Your task to perform on an android device: remove spam from my inbox in the gmail app Image 0: 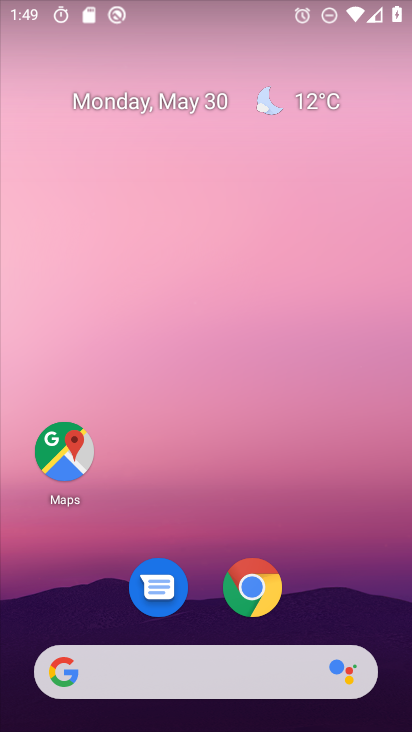
Step 0: drag from (358, 597) to (333, 152)
Your task to perform on an android device: remove spam from my inbox in the gmail app Image 1: 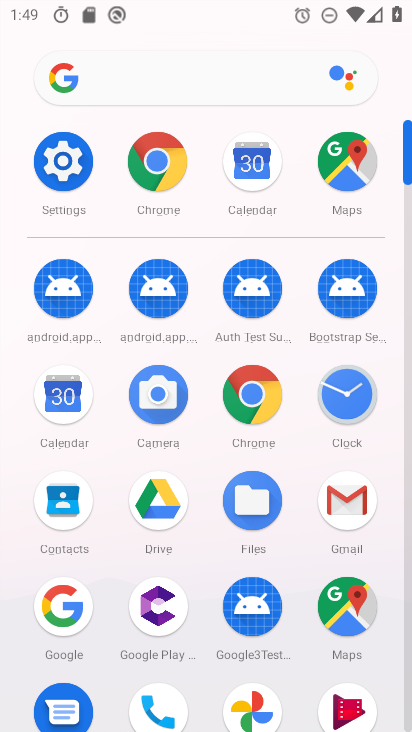
Step 1: click (348, 509)
Your task to perform on an android device: remove spam from my inbox in the gmail app Image 2: 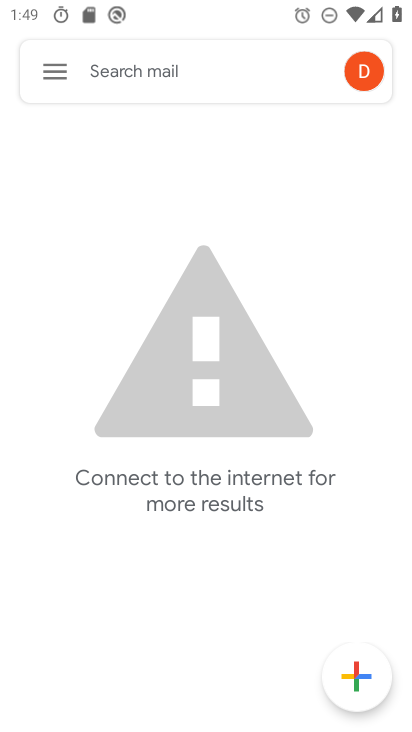
Step 2: click (54, 68)
Your task to perform on an android device: remove spam from my inbox in the gmail app Image 3: 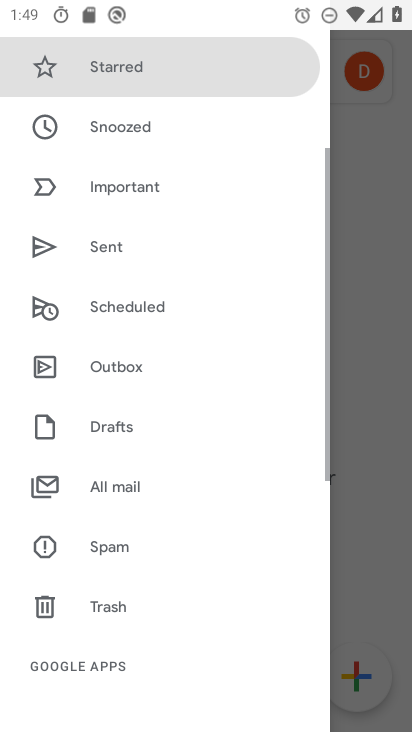
Step 3: drag from (156, 505) to (199, 293)
Your task to perform on an android device: remove spam from my inbox in the gmail app Image 4: 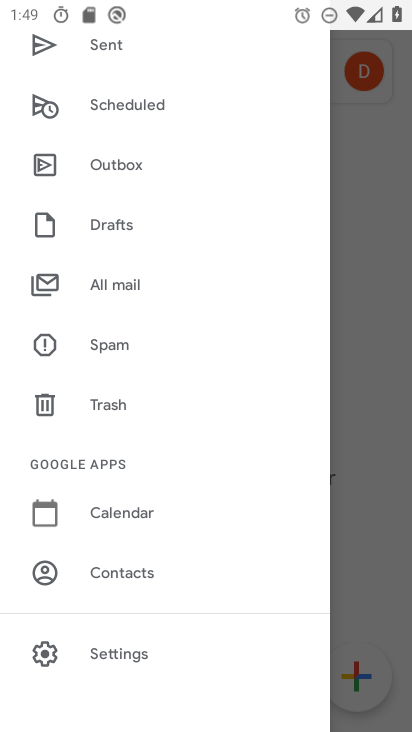
Step 4: click (88, 403)
Your task to perform on an android device: remove spam from my inbox in the gmail app Image 5: 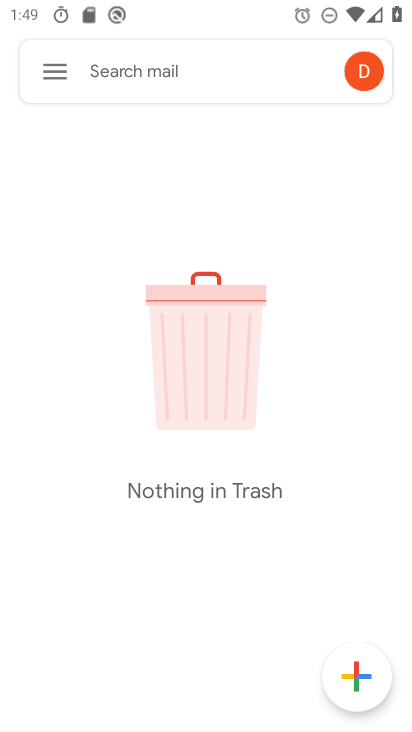
Step 5: click (63, 60)
Your task to perform on an android device: remove spam from my inbox in the gmail app Image 6: 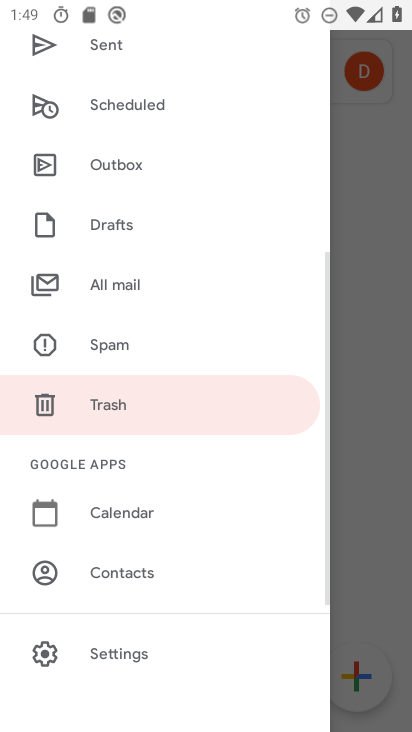
Step 6: drag from (168, 150) to (154, 681)
Your task to perform on an android device: remove spam from my inbox in the gmail app Image 7: 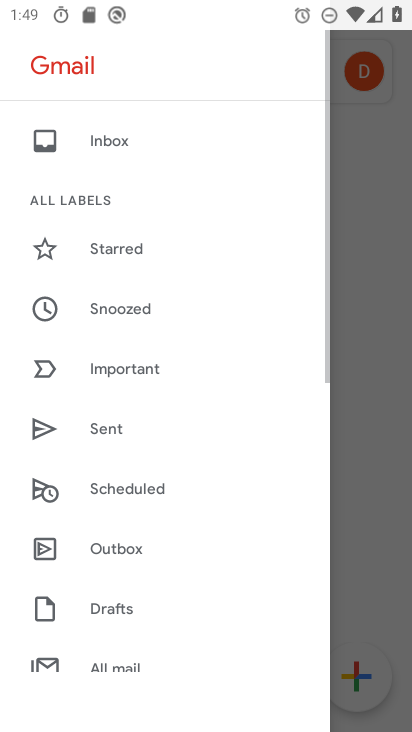
Step 7: click (90, 144)
Your task to perform on an android device: remove spam from my inbox in the gmail app Image 8: 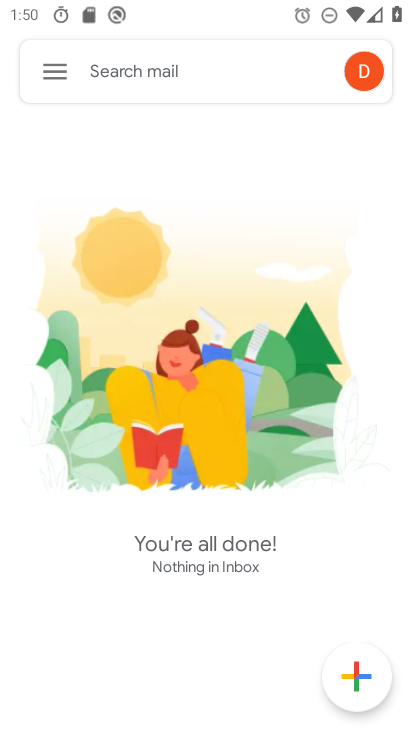
Step 8: task complete